Your task to perform on an android device: turn notification dots on Image 0: 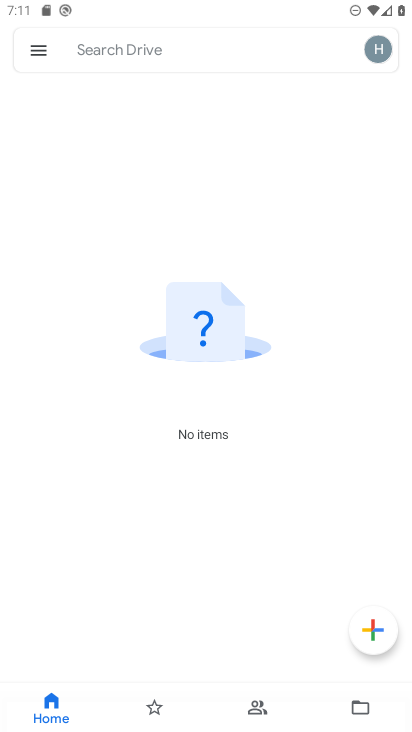
Step 0: press home button
Your task to perform on an android device: turn notification dots on Image 1: 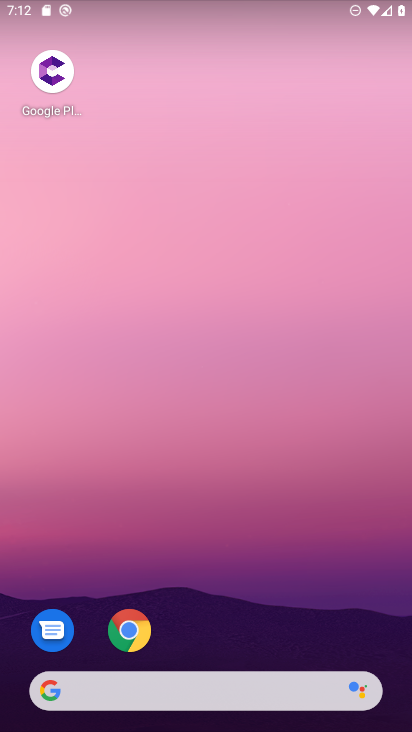
Step 1: drag from (372, 637) to (227, 39)
Your task to perform on an android device: turn notification dots on Image 2: 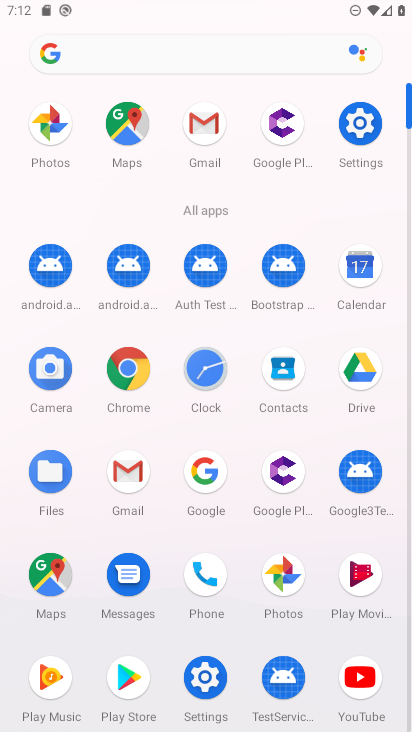
Step 2: click (192, 680)
Your task to perform on an android device: turn notification dots on Image 3: 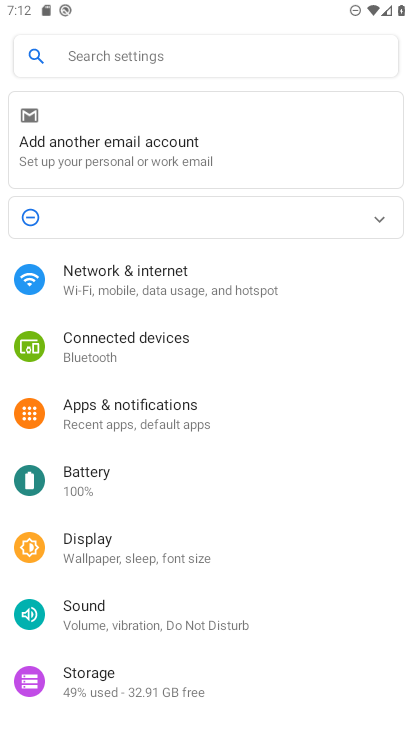
Step 3: click (140, 425)
Your task to perform on an android device: turn notification dots on Image 4: 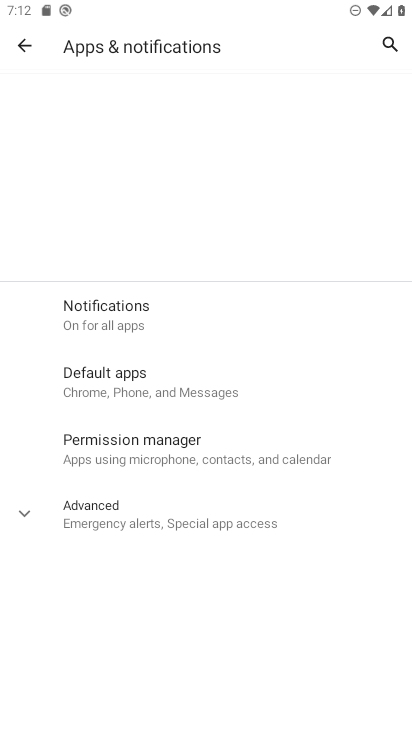
Step 4: click (86, 499)
Your task to perform on an android device: turn notification dots on Image 5: 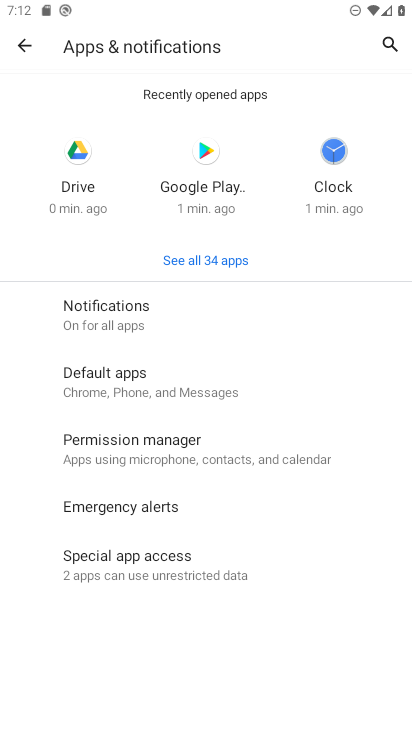
Step 5: click (92, 328)
Your task to perform on an android device: turn notification dots on Image 6: 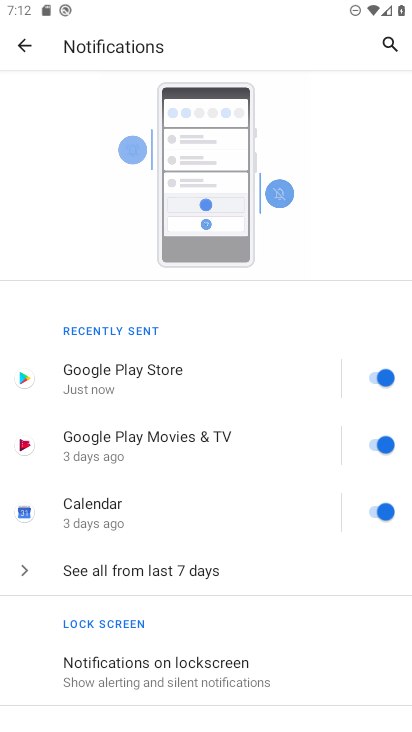
Step 6: drag from (85, 689) to (127, 192)
Your task to perform on an android device: turn notification dots on Image 7: 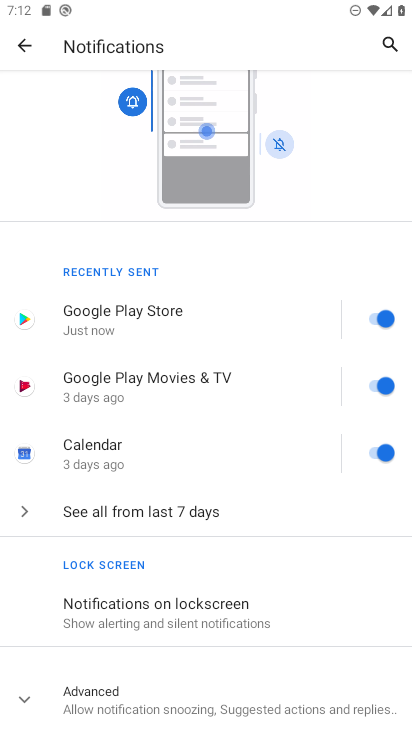
Step 7: click (37, 698)
Your task to perform on an android device: turn notification dots on Image 8: 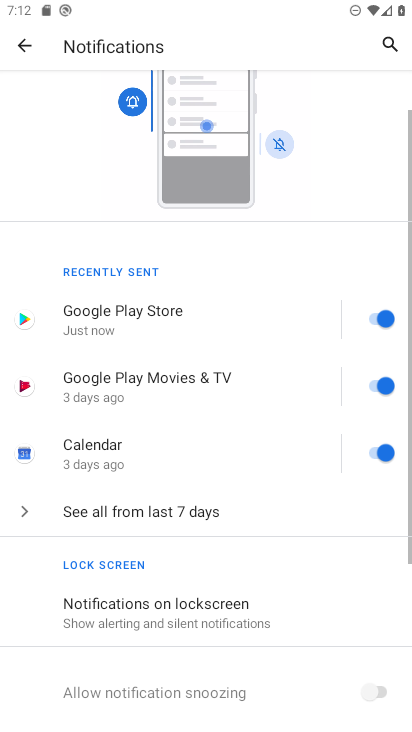
Step 8: task complete